Your task to perform on an android device: Open Amazon Image 0: 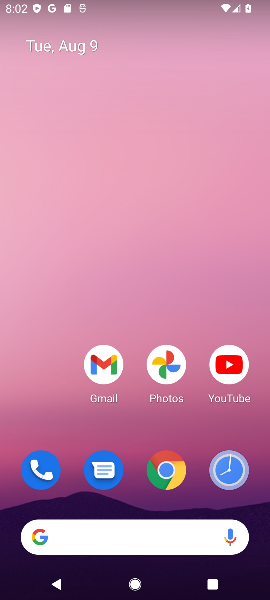
Step 0: click (176, 467)
Your task to perform on an android device: Open Amazon Image 1: 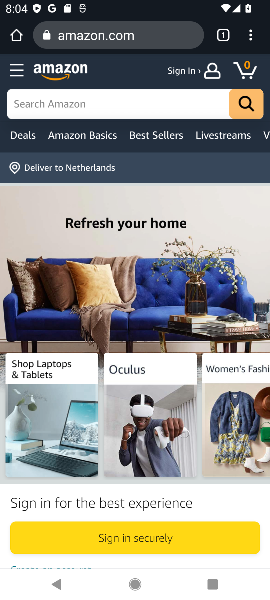
Step 1: task complete